Your task to perform on an android device: What's a good restaurant in Chicago? Image 0: 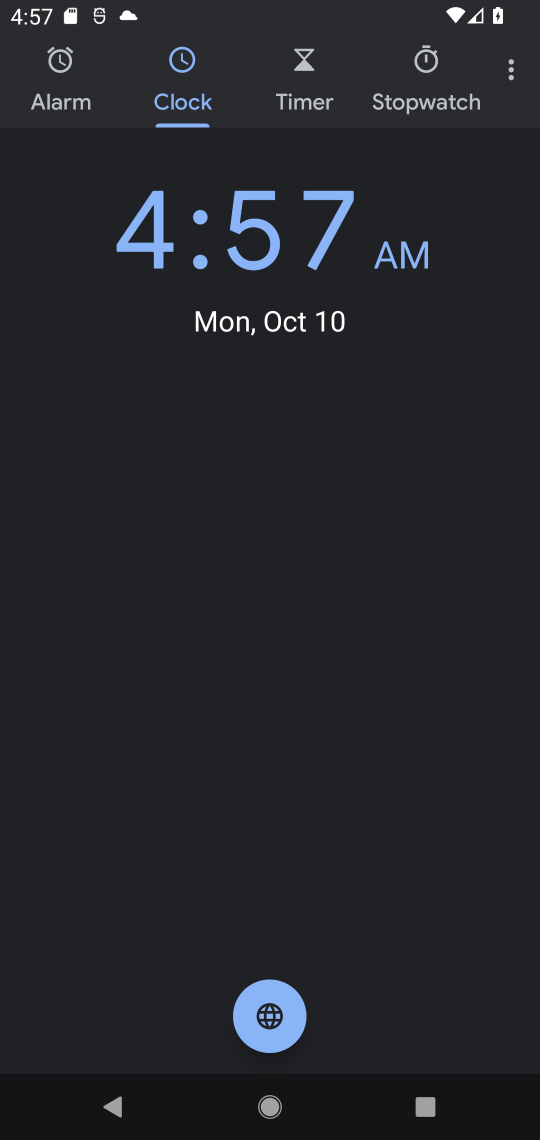
Step 0: press home button
Your task to perform on an android device: What's a good restaurant in Chicago? Image 1: 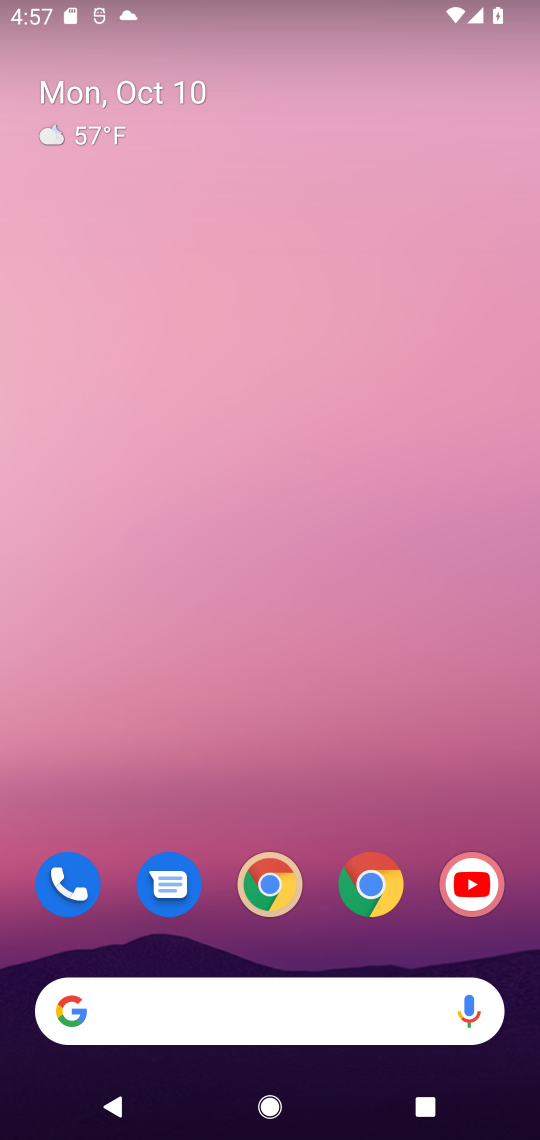
Step 1: click (373, 905)
Your task to perform on an android device: What's a good restaurant in Chicago? Image 2: 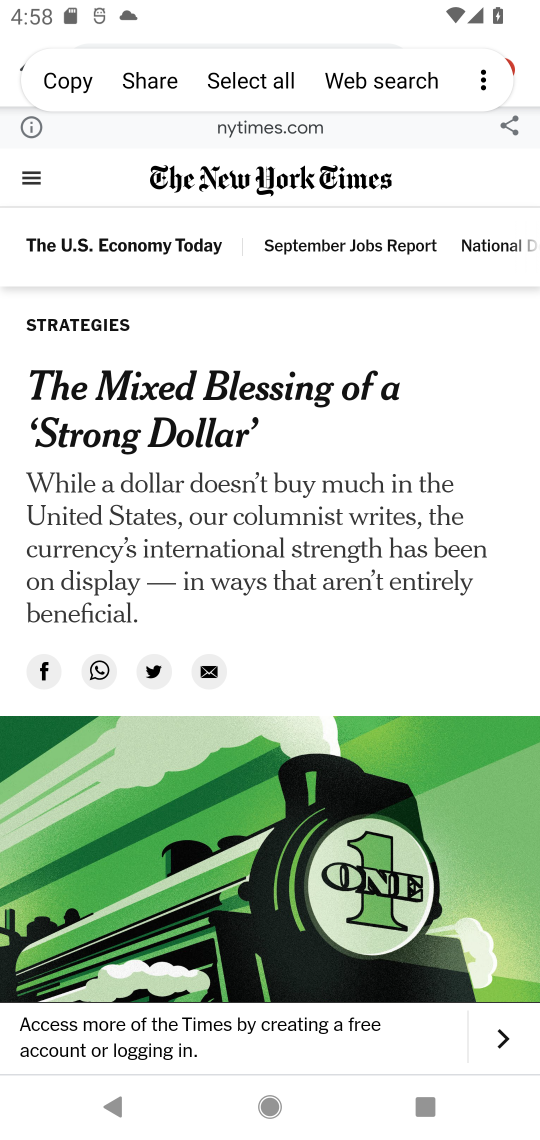
Step 2: click (303, 72)
Your task to perform on an android device: What's a good restaurant in Chicago? Image 3: 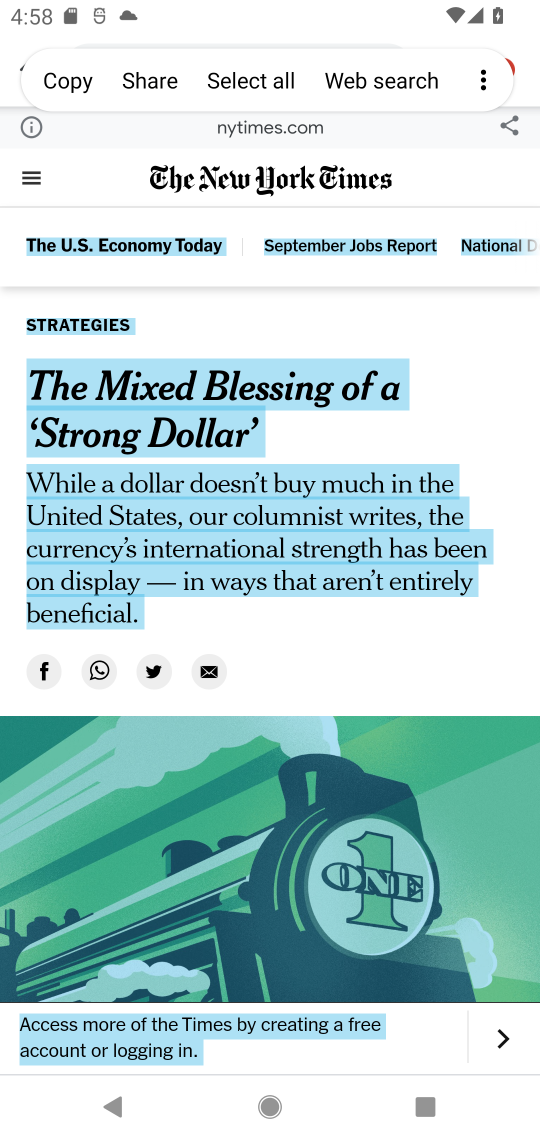
Step 3: press back button
Your task to perform on an android device: What's a good restaurant in Chicago? Image 4: 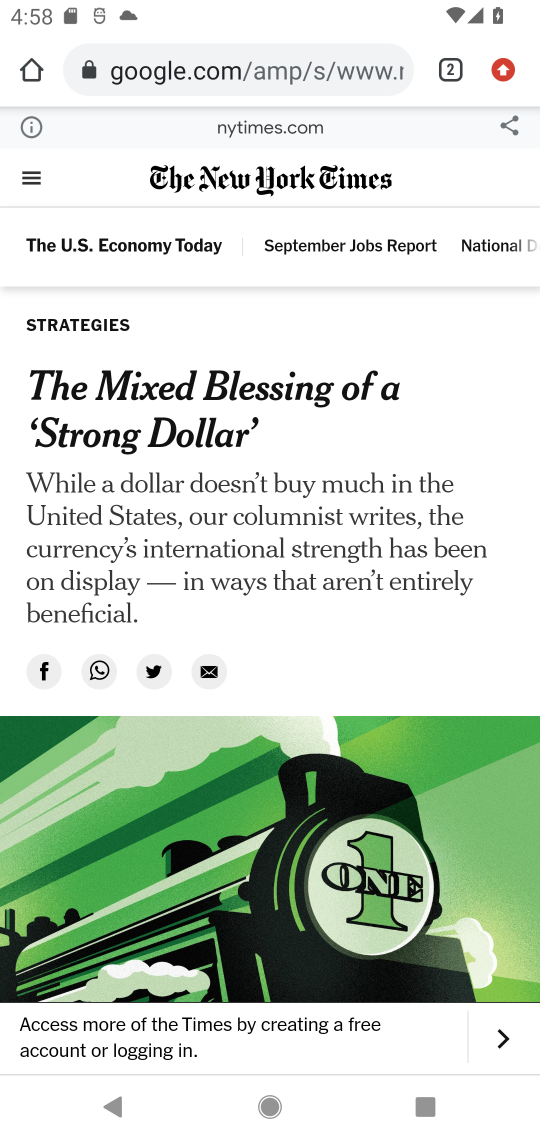
Step 4: click (242, 76)
Your task to perform on an android device: What's a good restaurant in Chicago? Image 5: 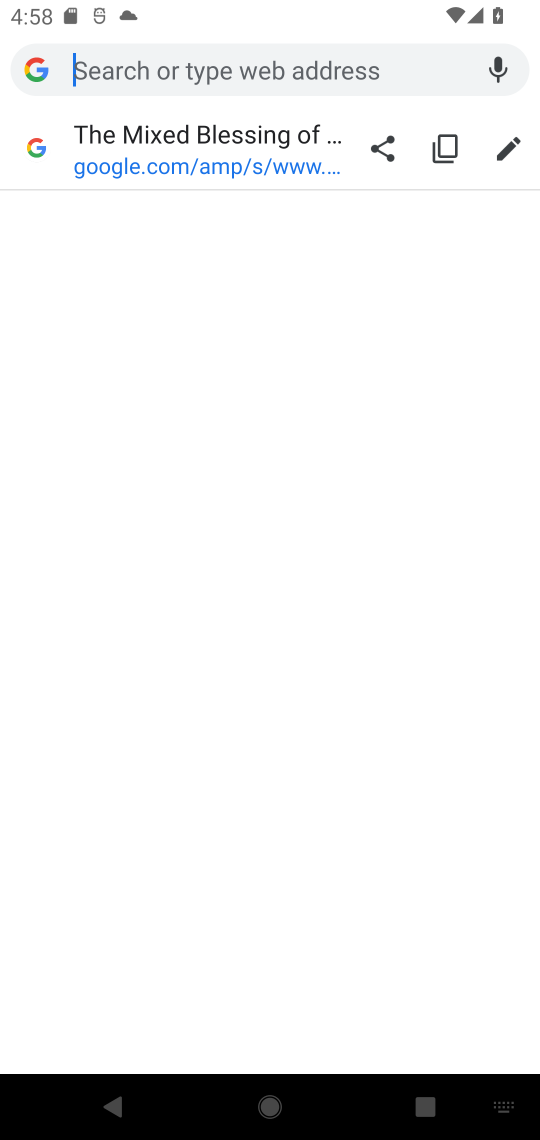
Step 5: type "a good restaurant in Chicago?"
Your task to perform on an android device: What's a good restaurant in Chicago? Image 6: 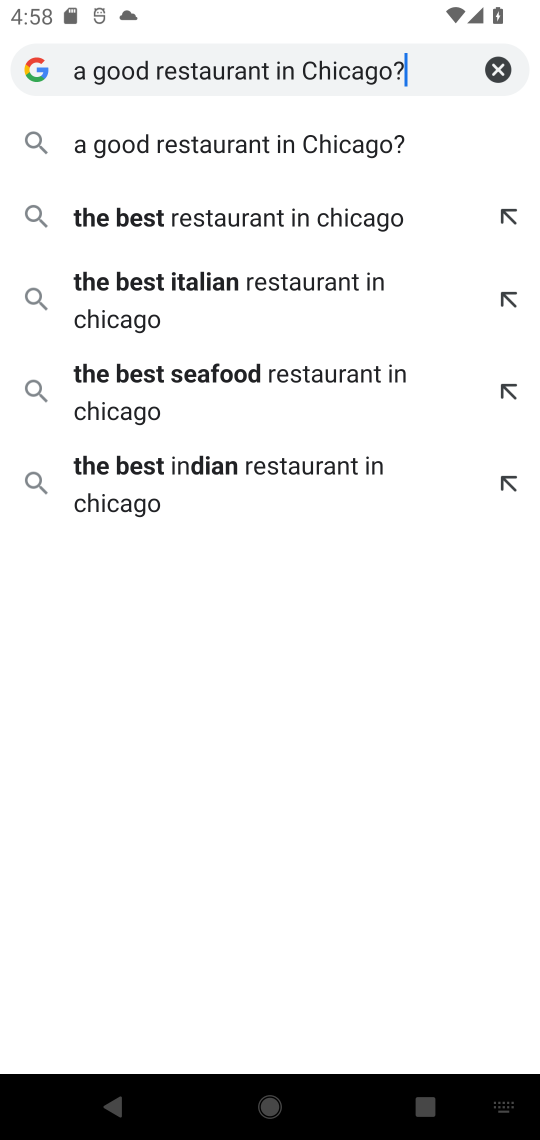
Step 6: click (184, 147)
Your task to perform on an android device: What's a good restaurant in Chicago? Image 7: 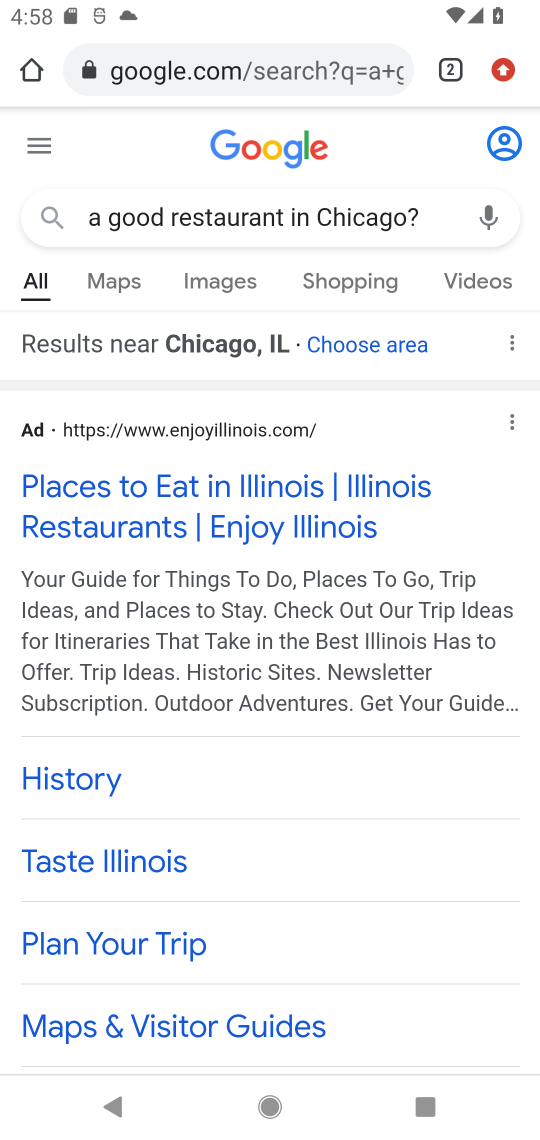
Step 7: click (152, 493)
Your task to perform on an android device: What's a good restaurant in Chicago? Image 8: 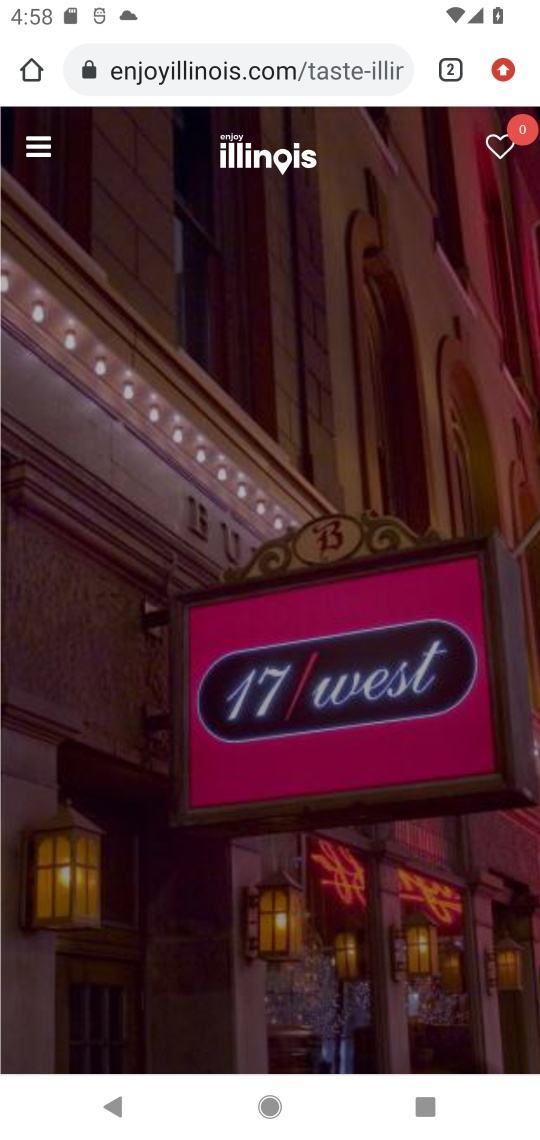
Step 8: task complete